Your task to perform on an android device: Search for sushi restaurants on Maps Image 0: 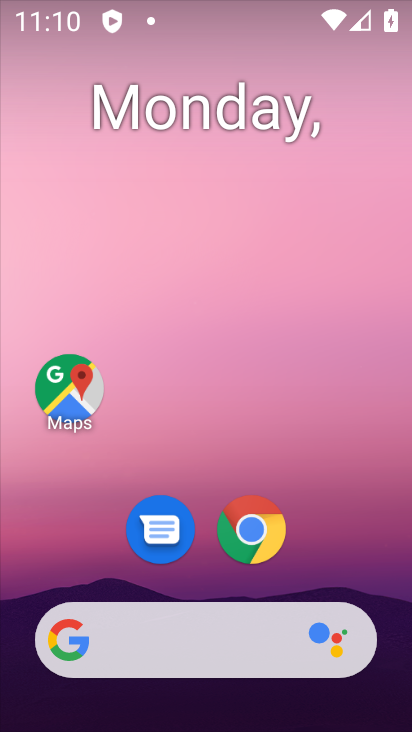
Step 0: press home button
Your task to perform on an android device: Search for sushi restaurants on Maps Image 1: 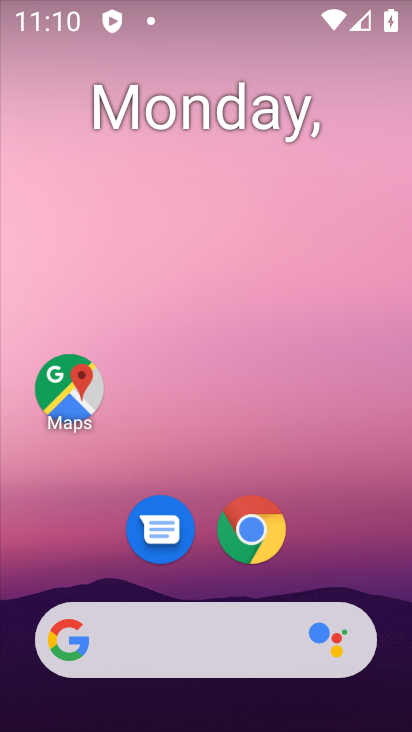
Step 1: click (51, 384)
Your task to perform on an android device: Search for sushi restaurants on Maps Image 2: 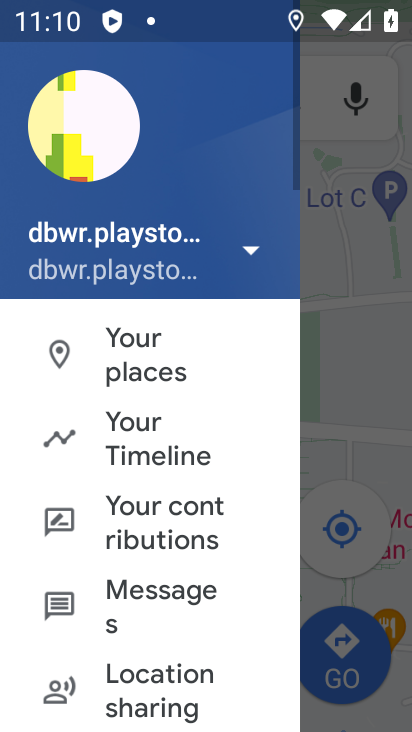
Step 2: click (336, 249)
Your task to perform on an android device: Search for sushi restaurants on Maps Image 3: 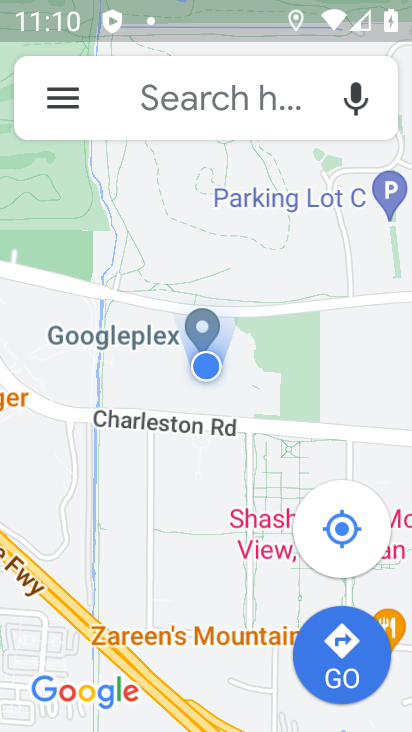
Step 3: click (229, 108)
Your task to perform on an android device: Search for sushi restaurants on Maps Image 4: 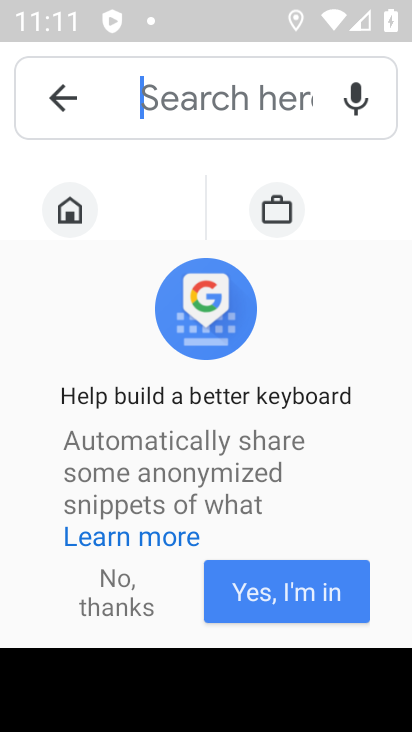
Step 4: click (112, 588)
Your task to perform on an android device: Search for sushi restaurants on Maps Image 5: 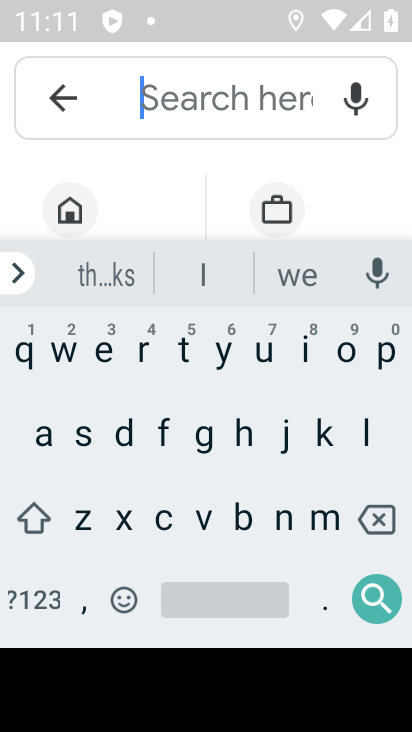
Step 5: click (80, 432)
Your task to perform on an android device: Search for sushi restaurants on Maps Image 6: 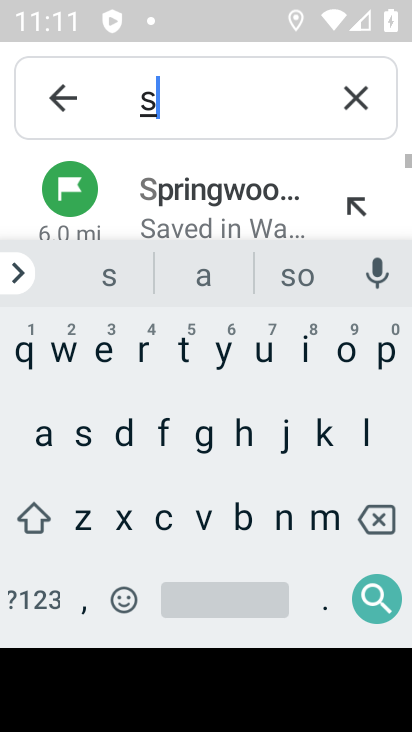
Step 6: click (260, 350)
Your task to perform on an android device: Search for sushi restaurants on Maps Image 7: 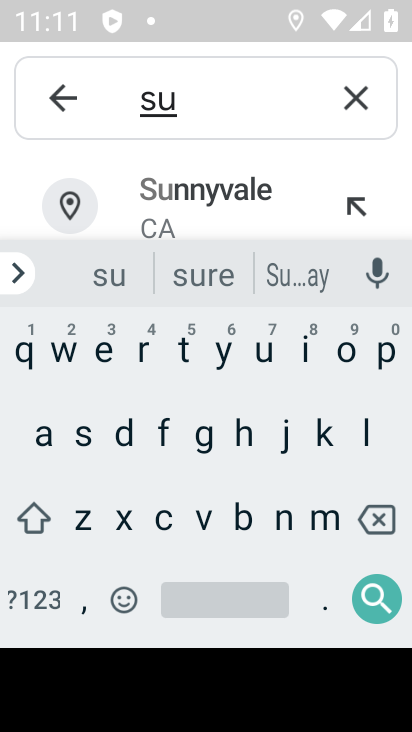
Step 7: click (87, 429)
Your task to perform on an android device: Search for sushi restaurants on Maps Image 8: 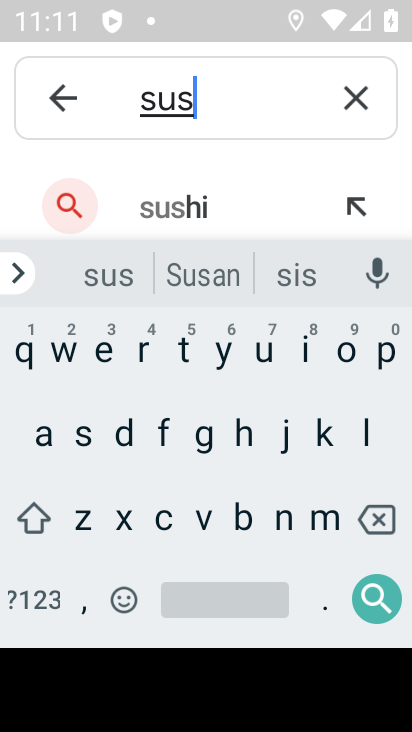
Step 8: click (169, 213)
Your task to perform on an android device: Search for sushi restaurants on Maps Image 9: 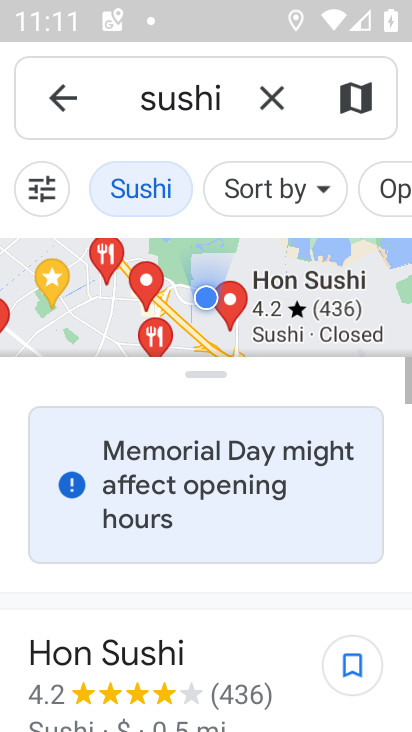
Step 9: task complete